Your task to perform on an android device: open chrome privacy settings Image 0: 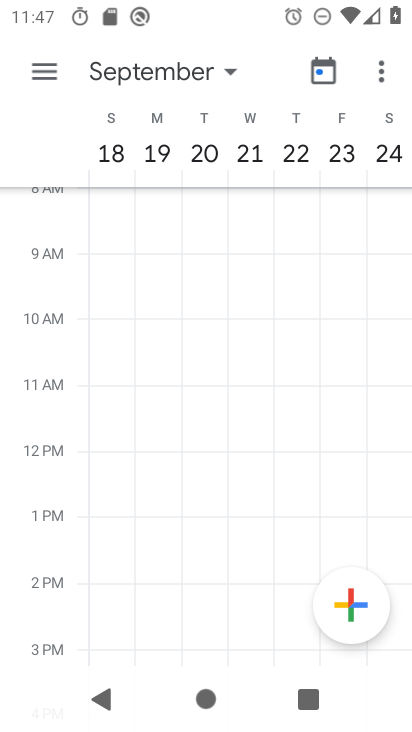
Step 0: press home button
Your task to perform on an android device: open chrome privacy settings Image 1: 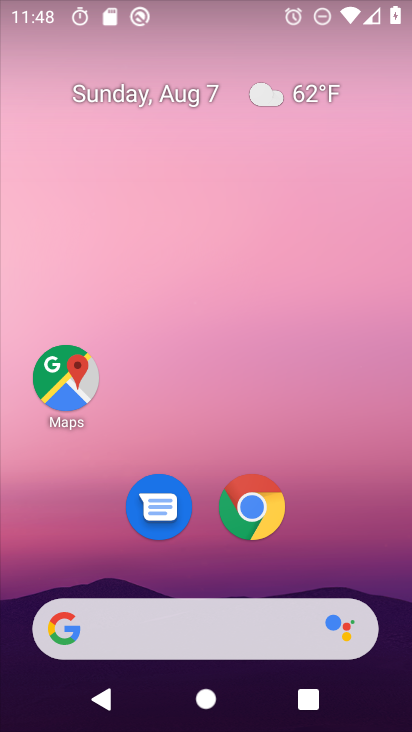
Step 1: drag from (319, 539) to (339, 60)
Your task to perform on an android device: open chrome privacy settings Image 2: 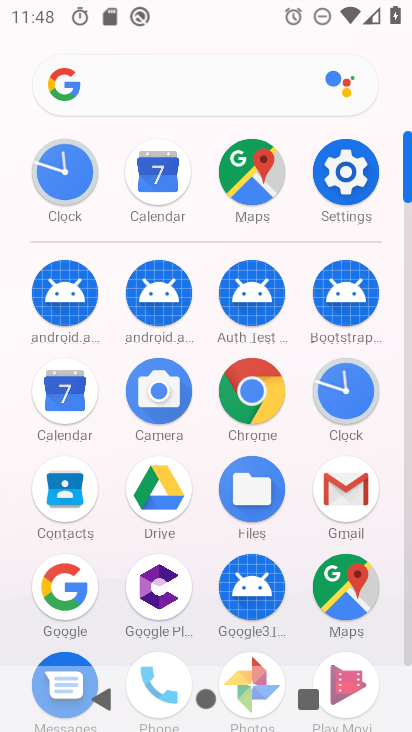
Step 2: click (255, 385)
Your task to perform on an android device: open chrome privacy settings Image 3: 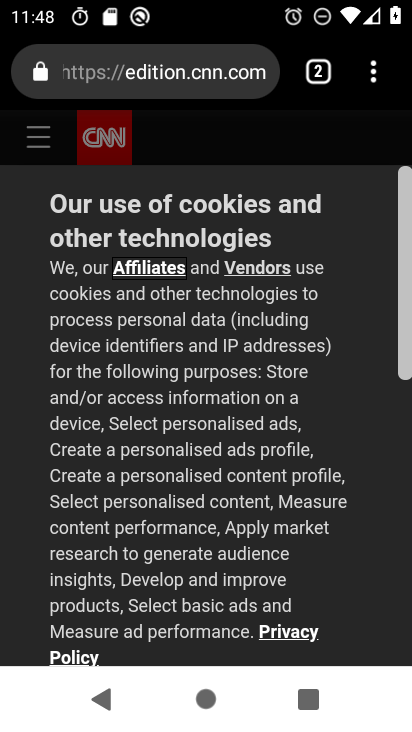
Step 3: click (373, 75)
Your task to perform on an android device: open chrome privacy settings Image 4: 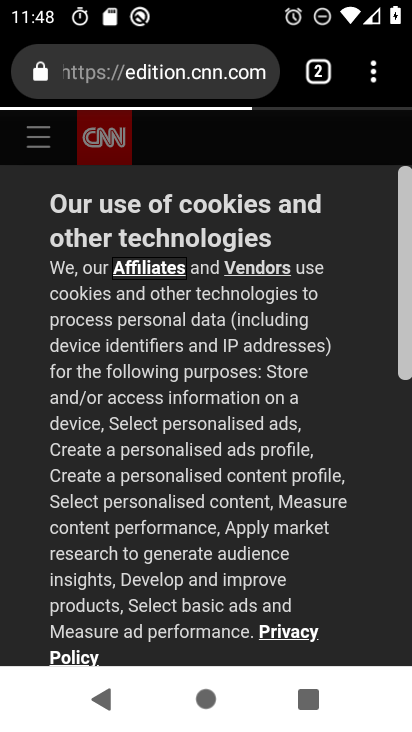
Step 4: drag from (375, 65) to (129, 517)
Your task to perform on an android device: open chrome privacy settings Image 5: 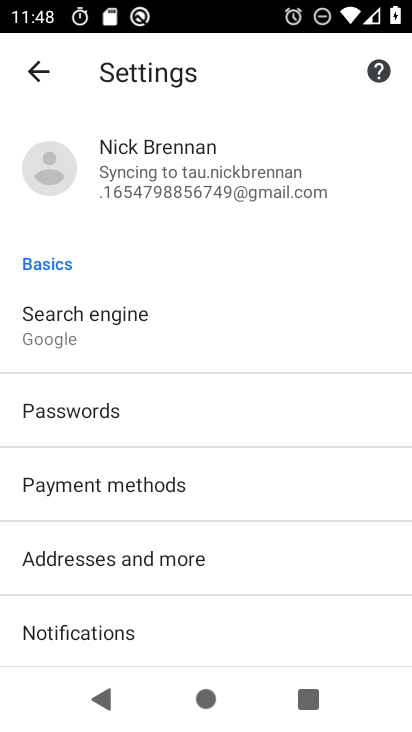
Step 5: drag from (285, 600) to (323, 152)
Your task to perform on an android device: open chrome privacy settings Image 6: 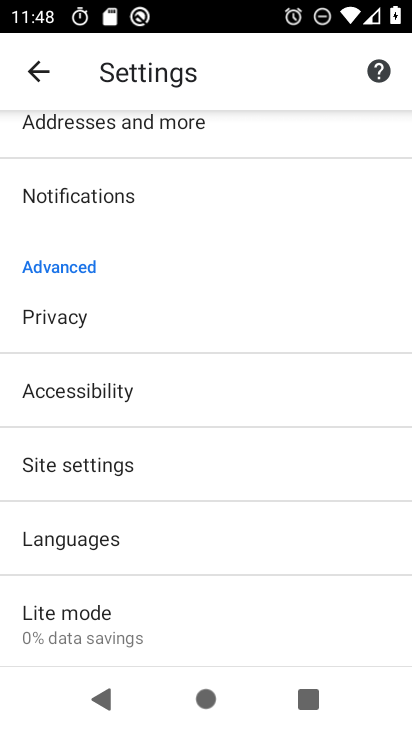
Step 6: drag from (200, 570) to (263, 232)
Your task to perform on an android device: open chrome privacy settings Image 7: 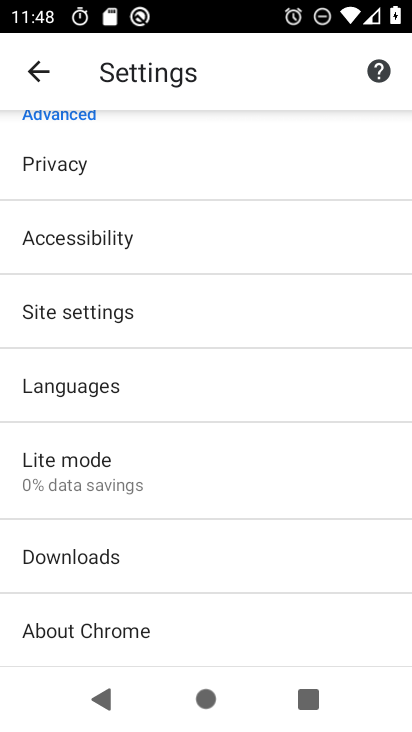
Step 7: click (84, 173)
Your task to perform on an android device: open chrome privacy settings Image 8: 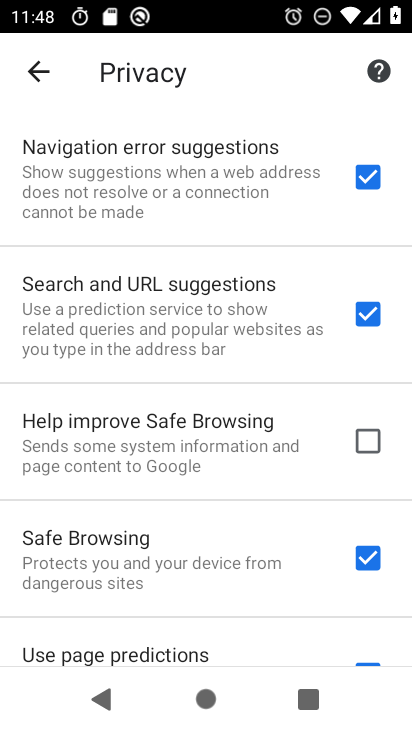
Step 8: task complete